Your task to perform on an android device: set an alarm Image 0: 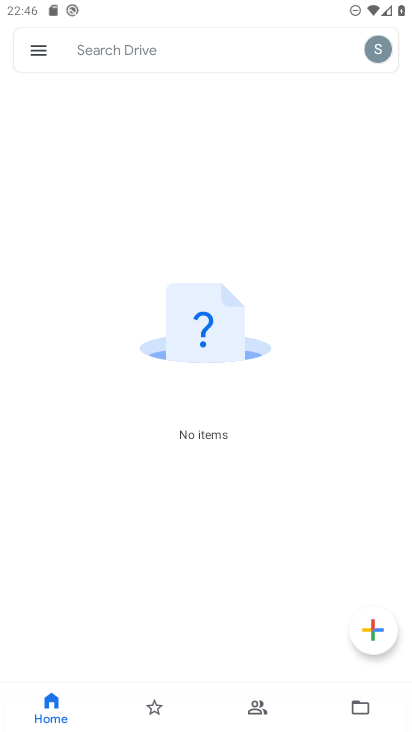
Step 0: press home button
Your task to perform on an android device: set an alarm Image 1: 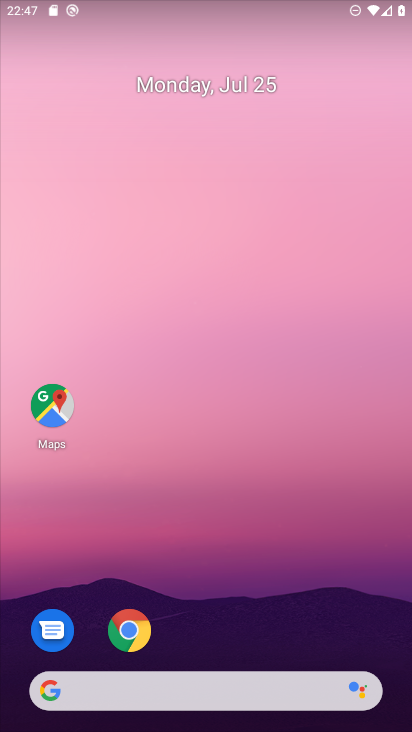
Step 1: drag from (332, 615) to (279, 56)
Your task to perform on an android device: set an alarm Image 2: 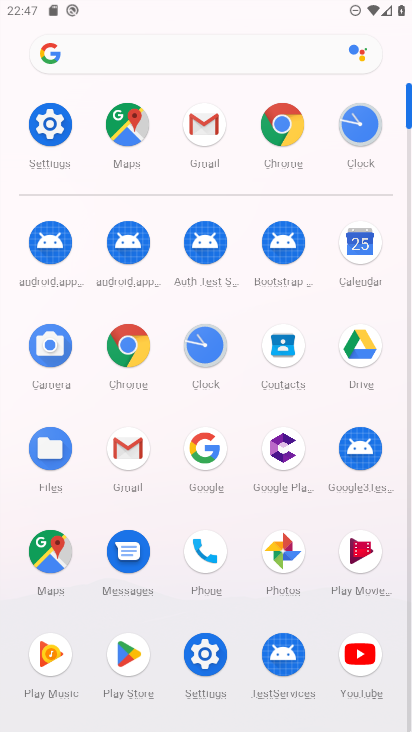
Step 2: click (357, 128)
Your task to perform on an android device: set an alarm Image 3: 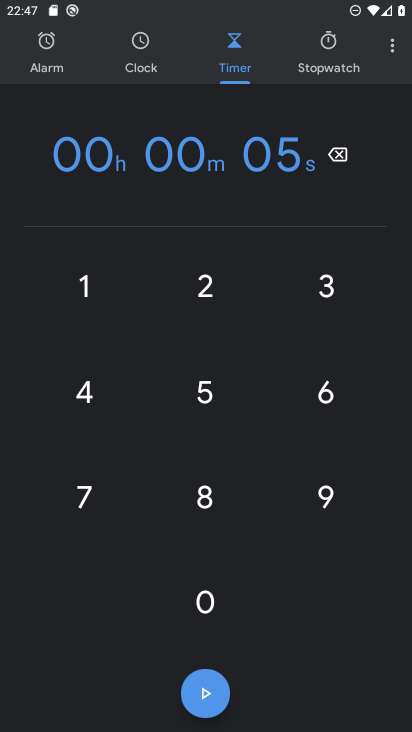
Step 3: click (60, 71)
Your task to perform on an android device: set an alarm Image 4: 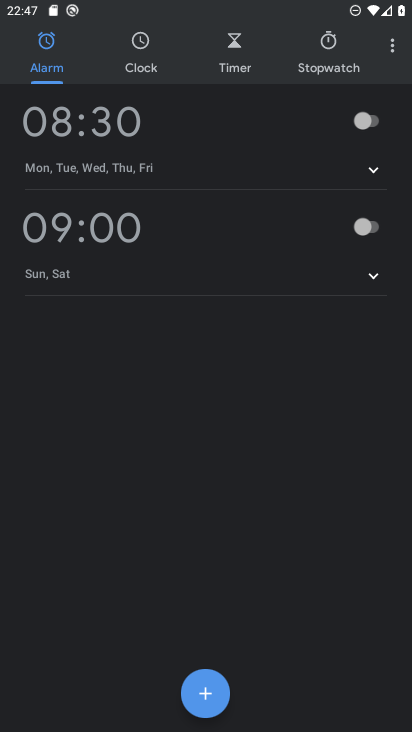
Step 4: click (205, 691)
Your task to perform on an android device: set an alarm Image 5: 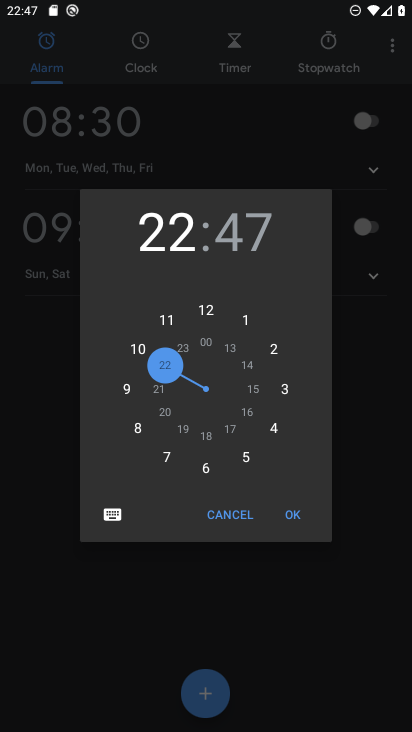
Step 5: click (297, 524)
Your task to perform on an android device: set an alarm Image 6: 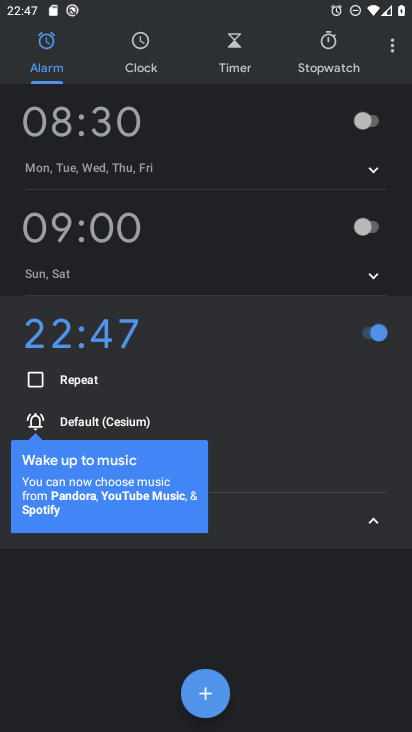
Step 6: task complete